Your task to perform on an android device: Is it going to rain tomorrow? Image 0: 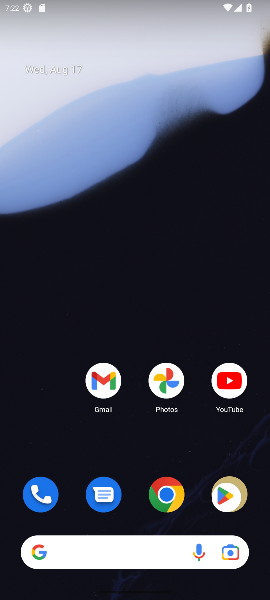
Step 0: drag from (265, 179) to (29, 67)
Your task to perform on an android device: Is it going to rain tomorrow? Image 1: 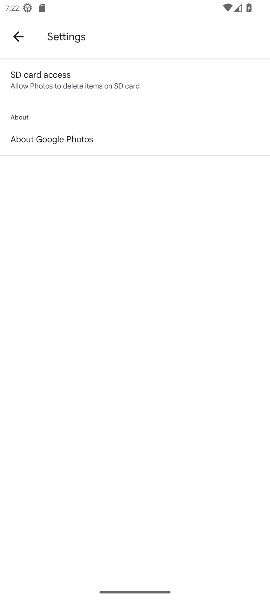
Step 1: press home button
Your task to perform on an android device: Is it going to rain tomorrow? Image 2: 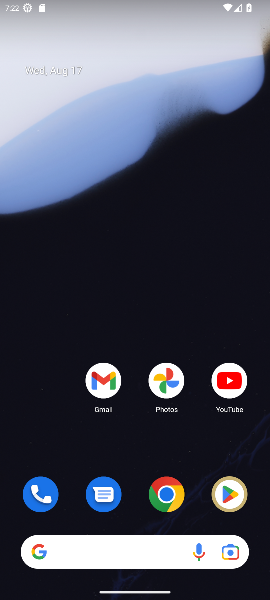
Step 2: drag from (83, 465) to (238, 5)
Your task to perform on an android device: Is it going to rain tomorrow? Image 3: 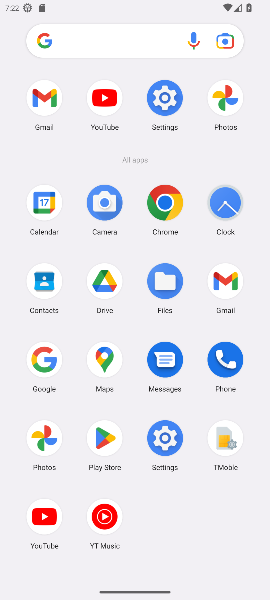
Step 3: click (43, 210)
Your task to perform on an android device: Is it going to rain tomorrow? Image 4: 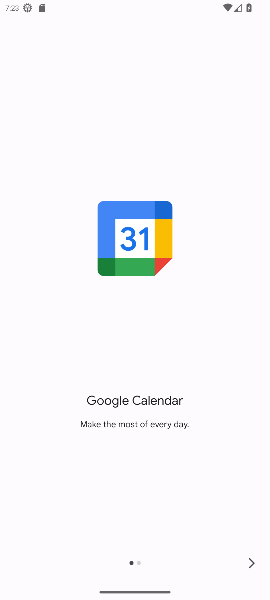
Step 4: click (252, 570)
Your task to perform on an android device: Is it going to rain tomorrow? Image 5: 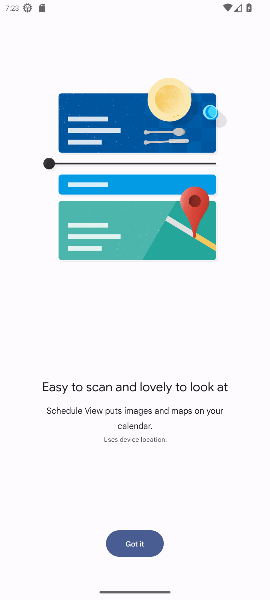
Step 5: click (142, 543)
Your task to perform on an android device: Is it going to rain tomorrow? Image 6: 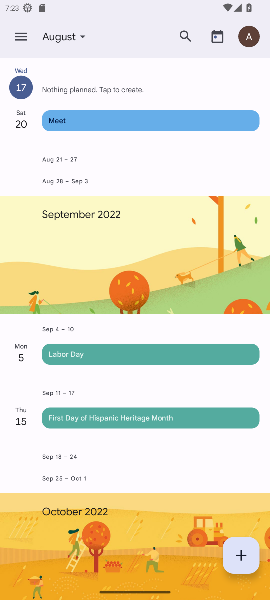
Step 6: click (63, 43)
Your task to perform on an android device: Is it going to rain tomorrow? Image 7: 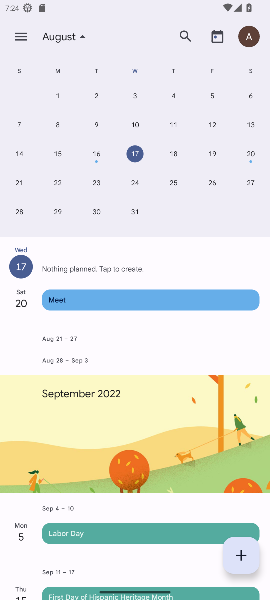
Step 7: click (170, 151)
Your task to perform on an android device: Is it going to rain tomorrow? Image 8: 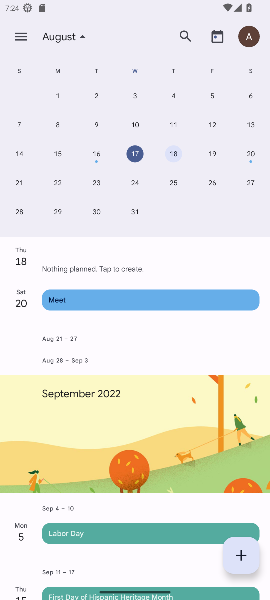
Step 8: task complete